Your task to perform on an android device: turn on the 12-hour format for clock Image 0: 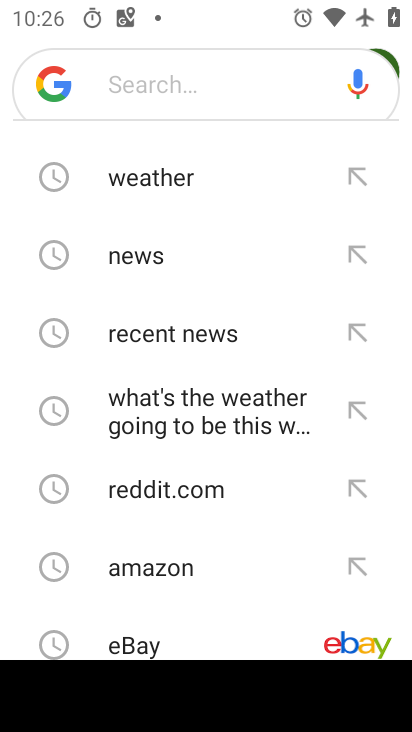
Step 0: press home button
Your task to perform on an android device: turn on the 12-hour format for clock Image 1: 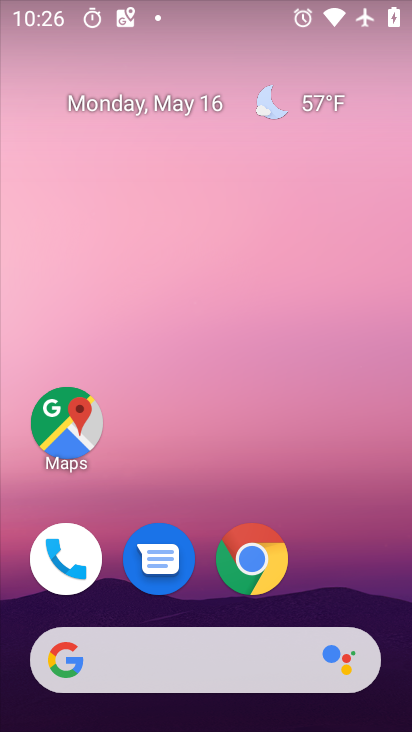
Step 1: drag from (320, 533) to (348, 96)
Your task to perform on an android device: turn on the 12-hour format for clock Image 2: 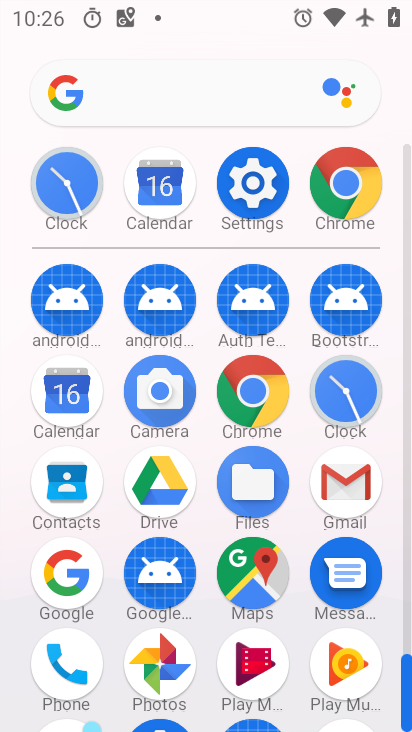
Step 2: click (337, 386)
Your task to perform on an android device: turn on the 12-hour format for clock Image 3: 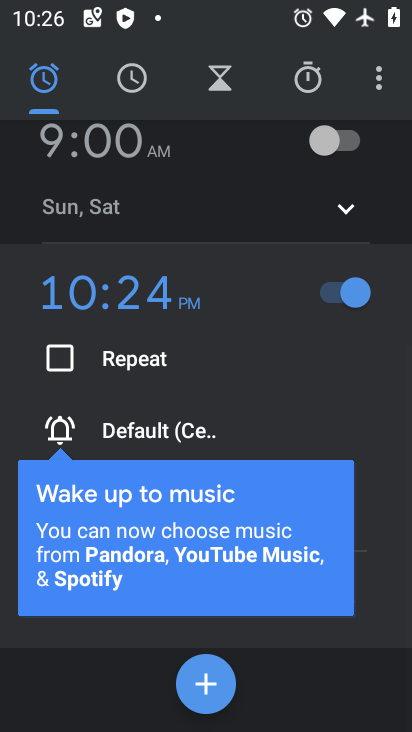
Step 3: drag from (383, 86) to (241, 127)
Your task to perform on an android device: turn on the 12-hour format for clock Image 4: 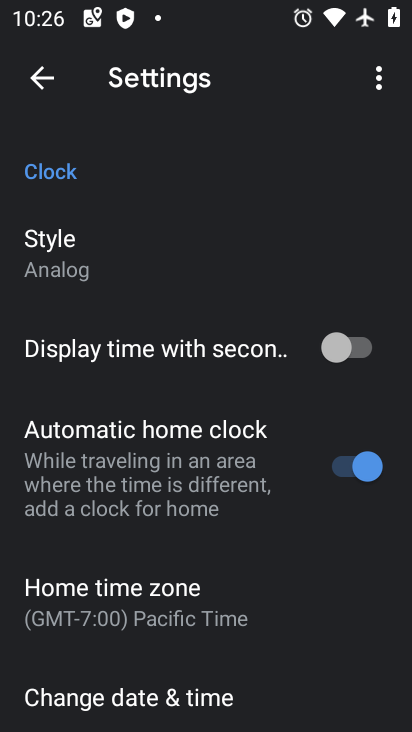
Step 4: drag from (211, 629) to (272, 192)
Your task to perform on an android device: turn on the 12-hour format for clock Image 5: 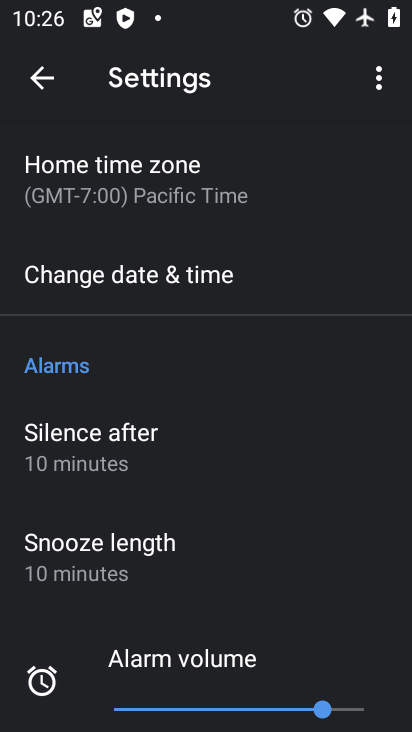
Step 5: click (188, 292)
Your task to perform on an android device: turn on the 12-hour format for clock Image 6: 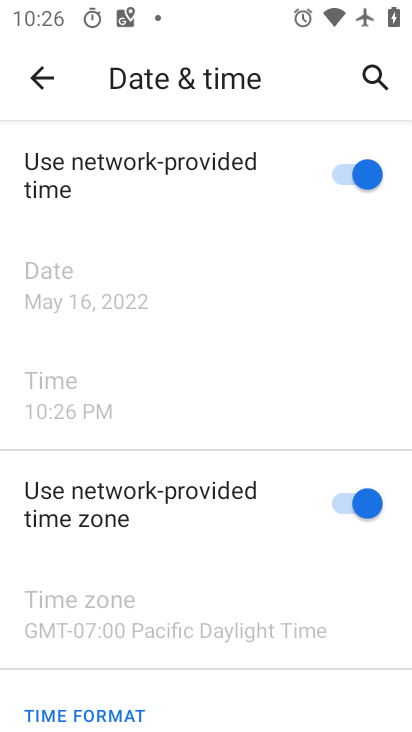
Step 6: task complete